Your task to perform on an android device: What is the news today? Image 0: 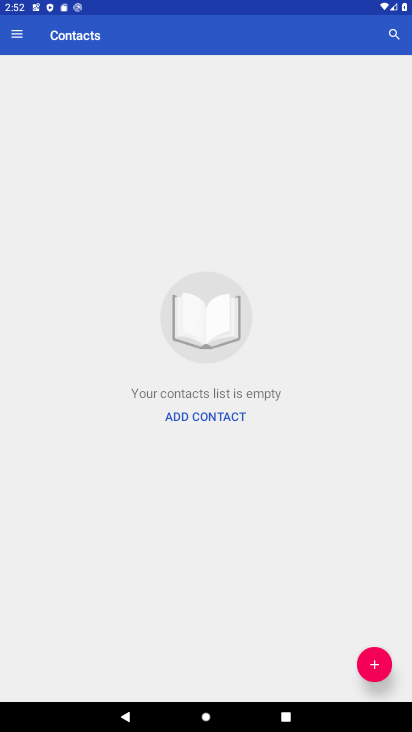
Step 0: press home button
Your task to perform on an android device: What is the news today? Image 1: 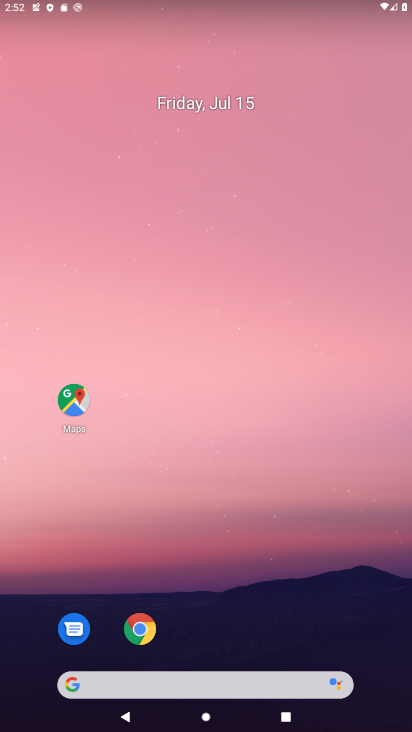
Step 1: drag from (203, 653) to (135, 78)
Your task to perform on an android device: What is the news today? Image 2: 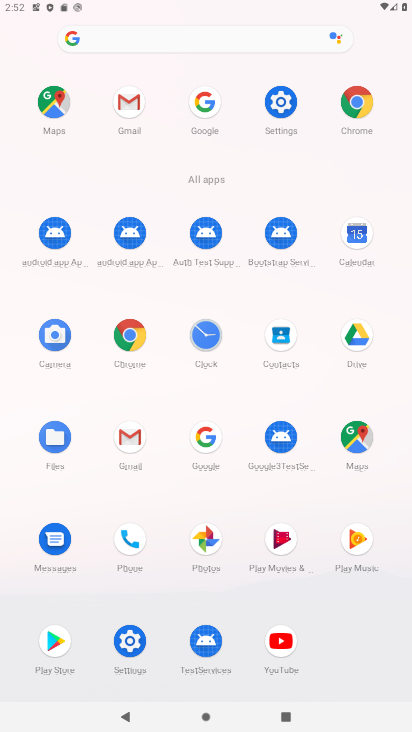
Step 2: click (200, 105)
Your task to perform on an android device: What is the news today? Image 3: 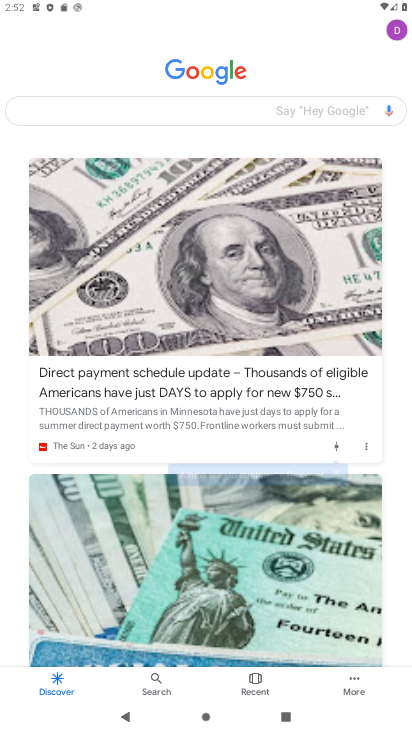
Step 3: click (197, 102)
Your task to perform on an android device: What is the news today? Image 4: 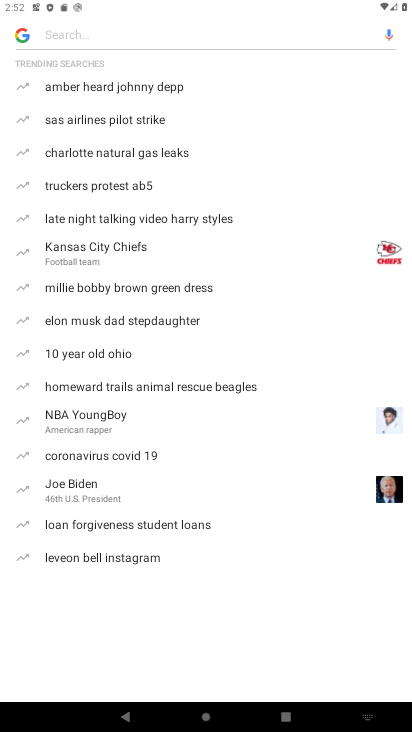
Step 4: type "news today?"
Your task to perform on an android device: What is the news today? Image 5: 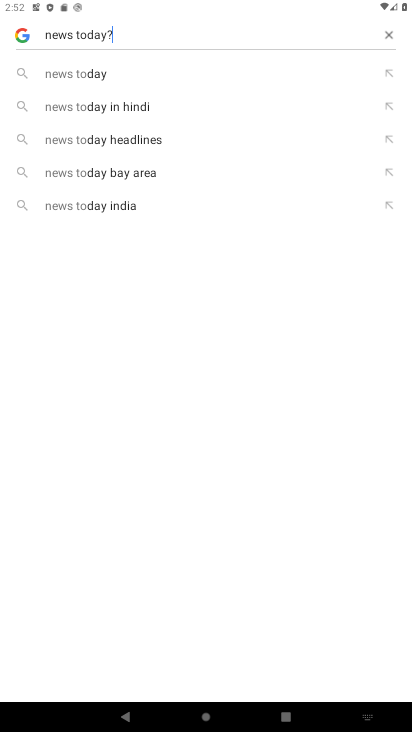
Step 5: type ""
Your task to perform on an android device: What is the news today? Image 6: 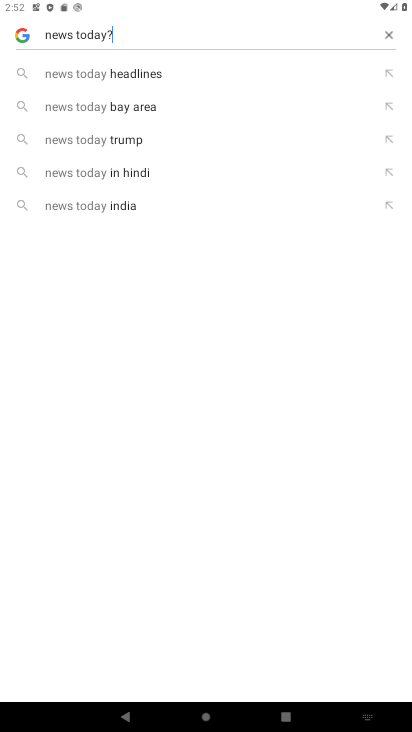
Step 6: click (317, 233)
Your task to perform on an android device: What is the news today? Image 7: 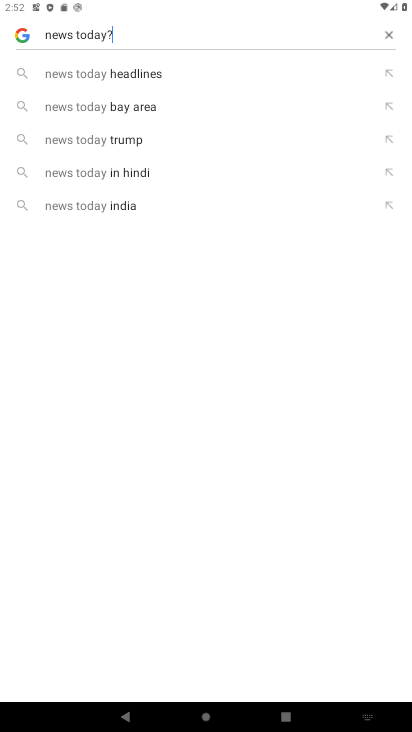
Step 7: click (398, 31)
Your task to perform on an android device: What is the news today? Image 8: 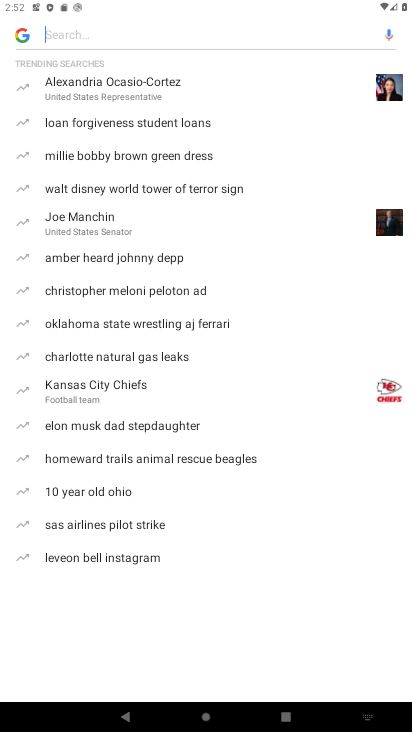
Step 8: type "news"
Your task to perform on an android device: What is the news today? Image 9: 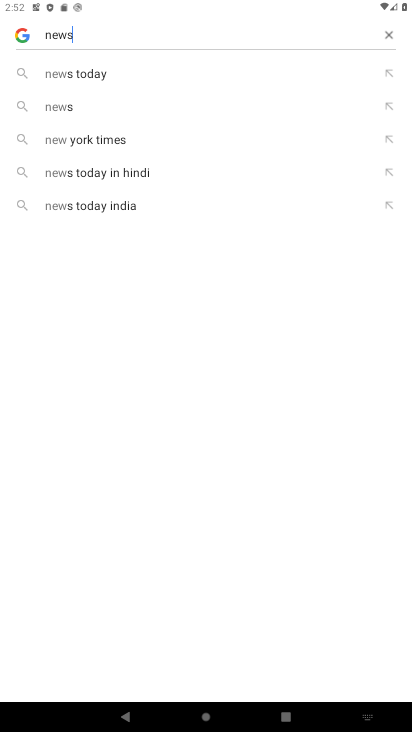
Step 9: type ""
Your task to perform on an android device: What is the news today? Image 10: 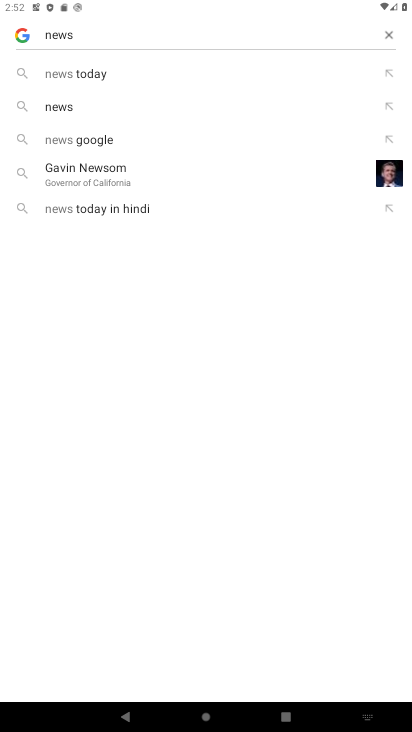
Step 10: click (81, 67)
Your task to perform on an android device: What is the news today? Image 11: 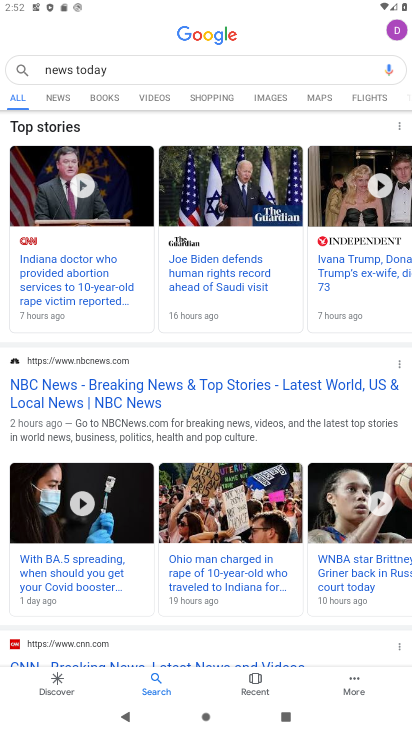
Step 11: task complete